Your task to perform on an android device: Go to privacy settings Image 0: 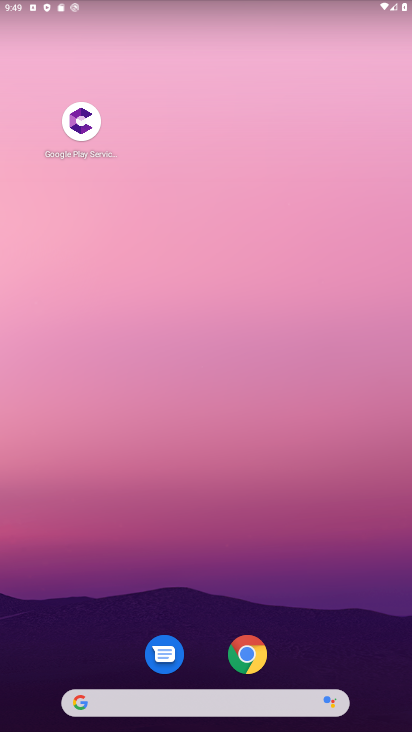
Step 0: drag from (323, 100) to (356, 277)
Your task to perform on an android device: Go to privacy settings Image 1: 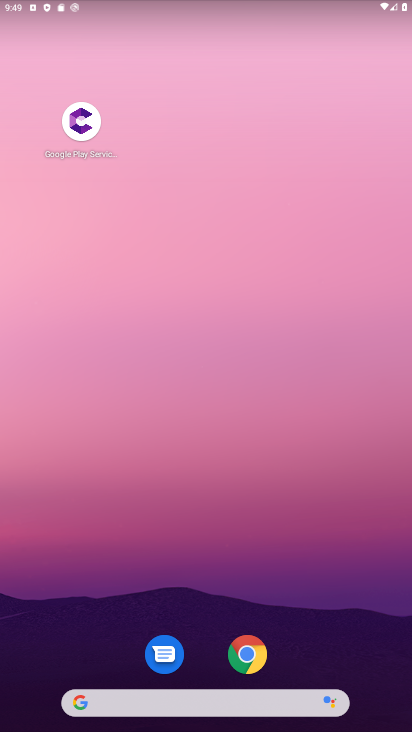
Step 1: drag from (89, 611) to (202, 239)
Your task to perform on an android device: Go to privacy settings Image 2: 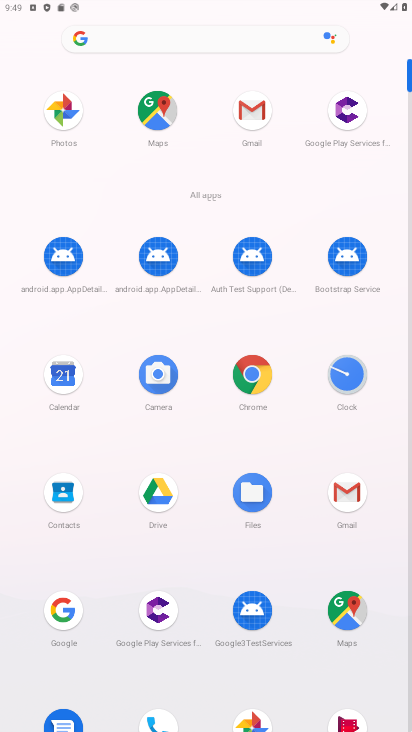
Step 2: drag from (302, 671) to (307, 0)
Your task to perform on an android device: Go to privacy settings Image 3: 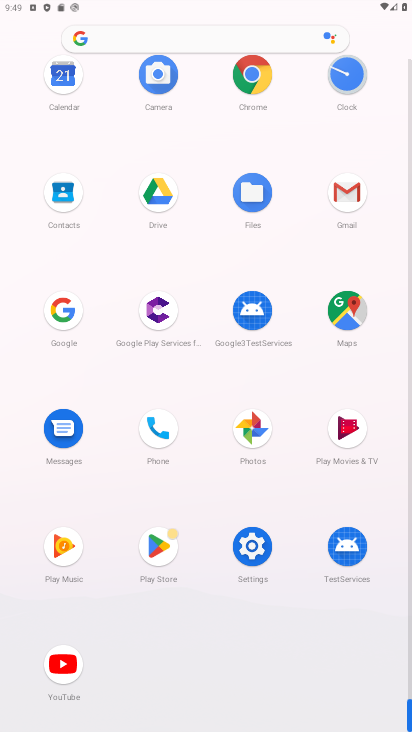
Step 3: click (244, 547)
Your task to perform on an android device: Go to privacy settings Image 4: 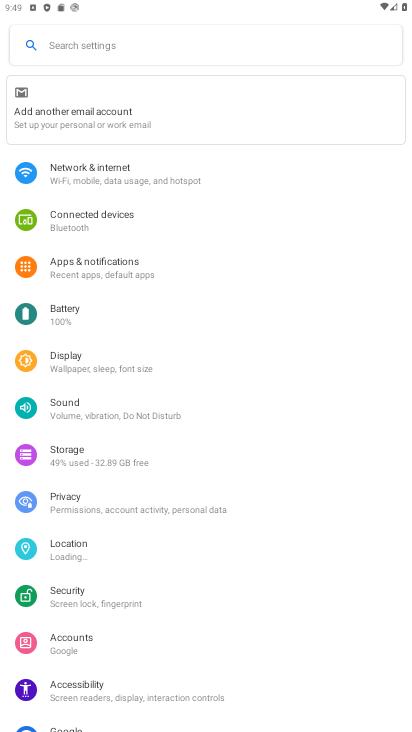
Step 4: click (92, 500)
Your task to perform on an android device: Go to privacy settings Image 5: 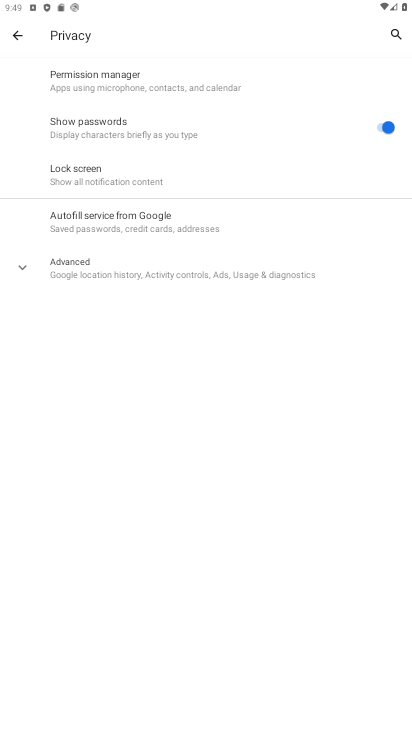
Step 5: task complete